Your task to perform on an android device: What's the weather going to be this weekend? Image 0: 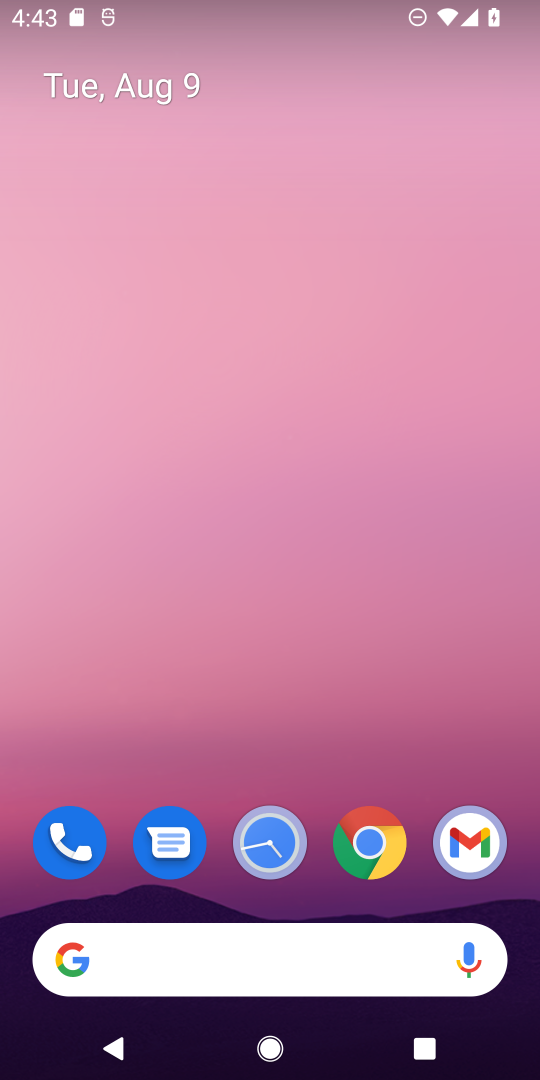
Step 0: drag from (346, 948) to (323, 97)
Your task to perform on an android device: What's the weather going to be this weekend? Image 1: 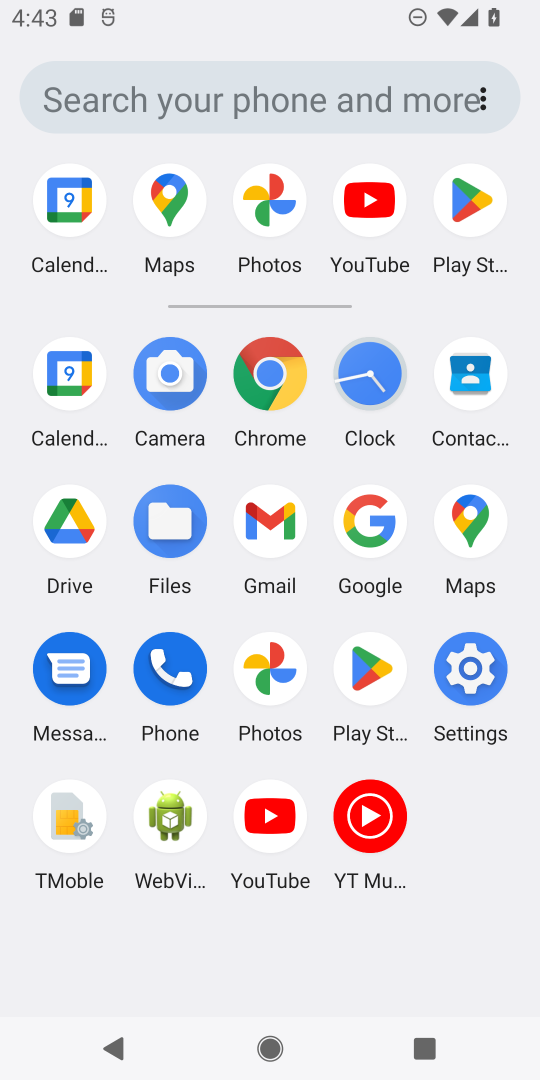
Step 1: click (275, 378)
Your task to perform on an android device: What's the weather going to be this weekend? Image 2: 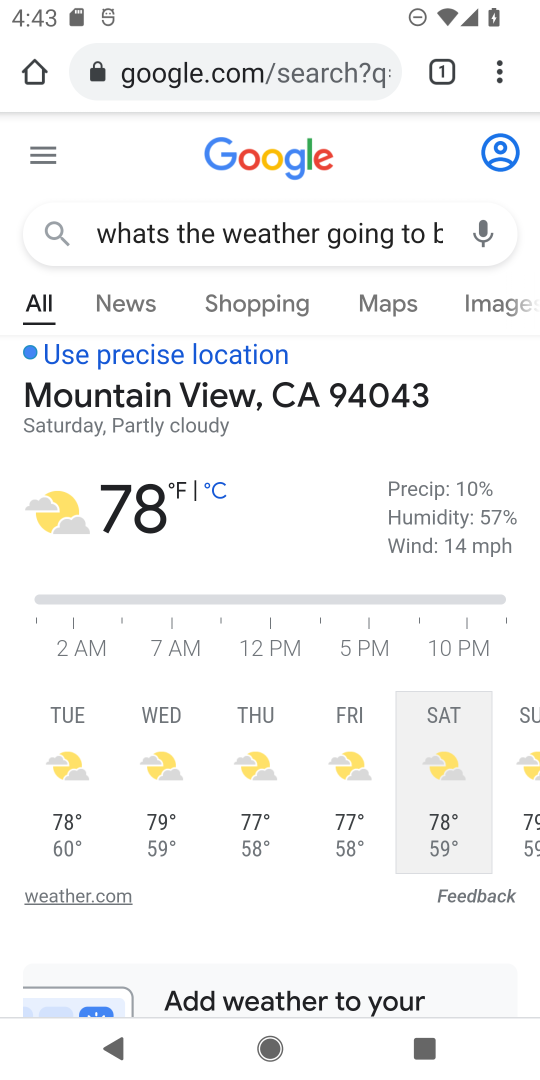
Step 2: task complete